Your task to perform on an android device: See recent photos Image 0: 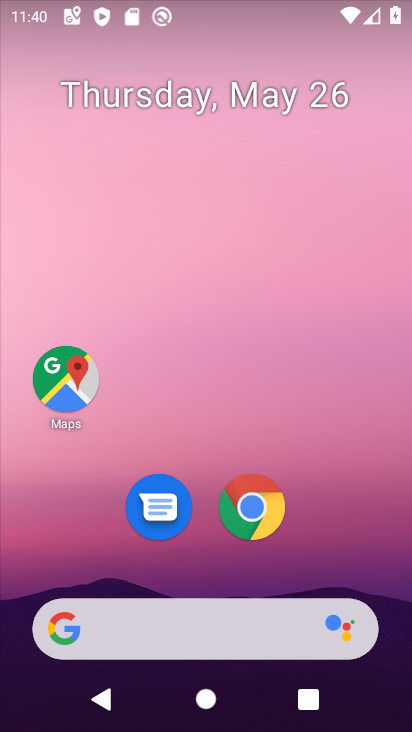
Step 0: drag from (338, 529) to (361, 17)
Your task to perform on an android device: See recent photos Image 1: 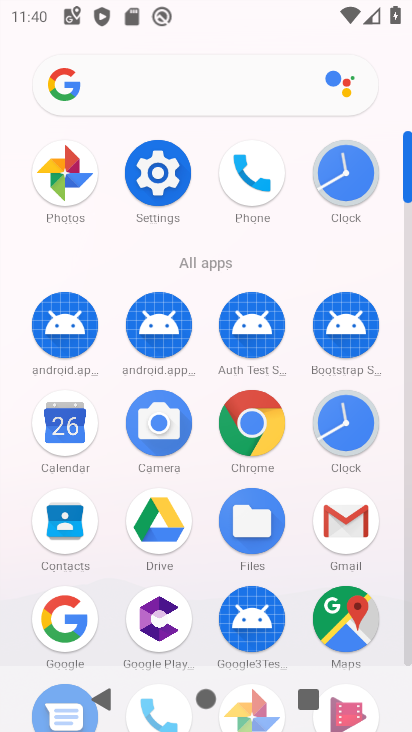
Step 1: drag from (296, 587) to (314, 225)
Your task to perform on an android device: See recent photos Image 2: 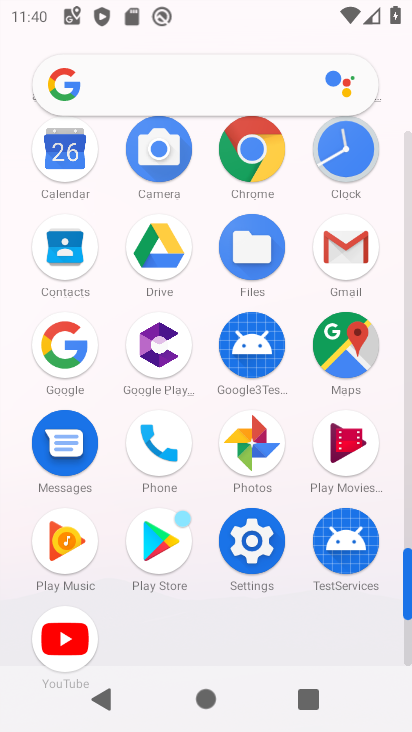
Step 2: click (266, 453)
Your task to perform on an android device: See recent photos Image 3: 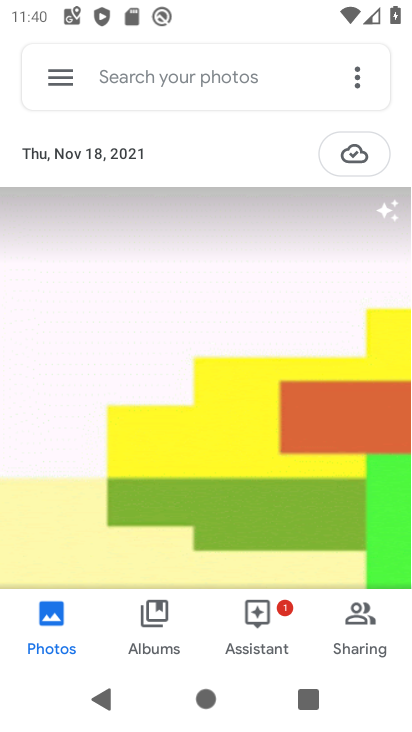
Step 3: task complete